Your task to perform on an android device: Show me the alarms in the clock app Image 0: 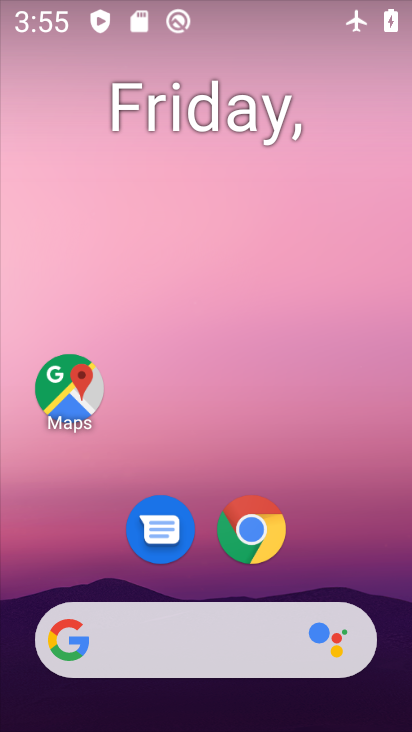
Step 0: drag from (114, 617) to (184, 203)
Your task to perform on an android device: Show me the alarms in the clock app Image 1: 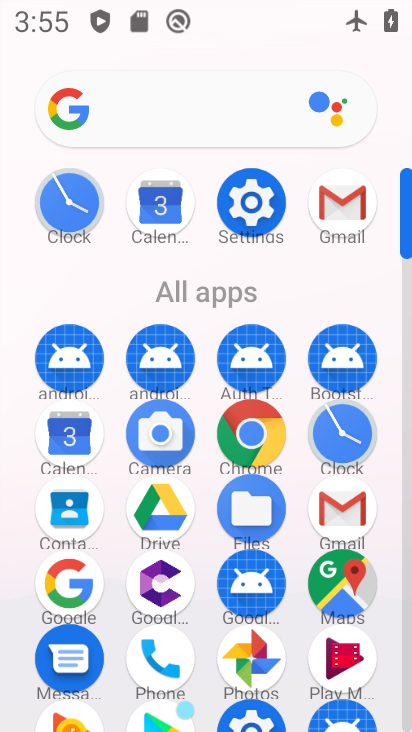
Step 1: click (351, 432)
Your task to perform on an android device: Show me the alarms in the clock app Image 2: 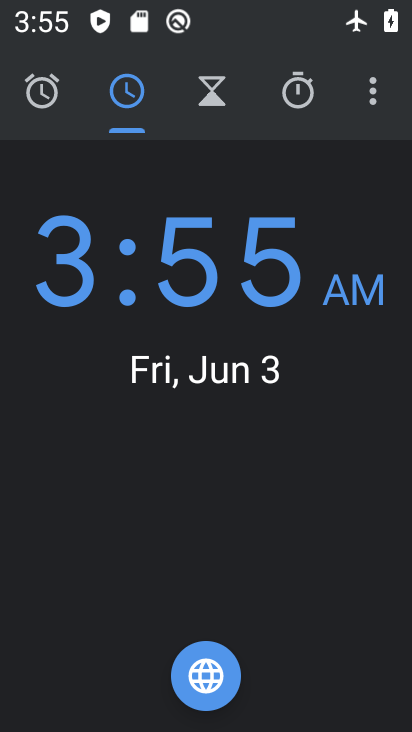
Step 2: click (44, 118)
Your task to perform on an android device: Show me the alarms in the clock app Image 3: 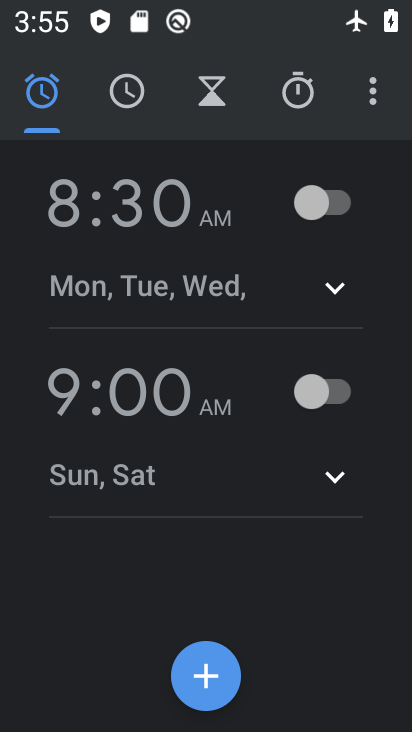
Step 3: click (328, 200)
Your task to perform on an android device: Show me the alarms in the clock app Image 4: 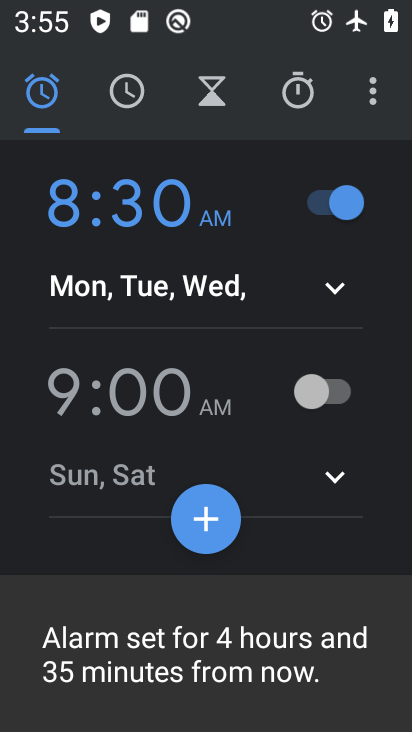
Step 4: task complete